Your task to perform on an android device: Turn off the flashlight Image 0: 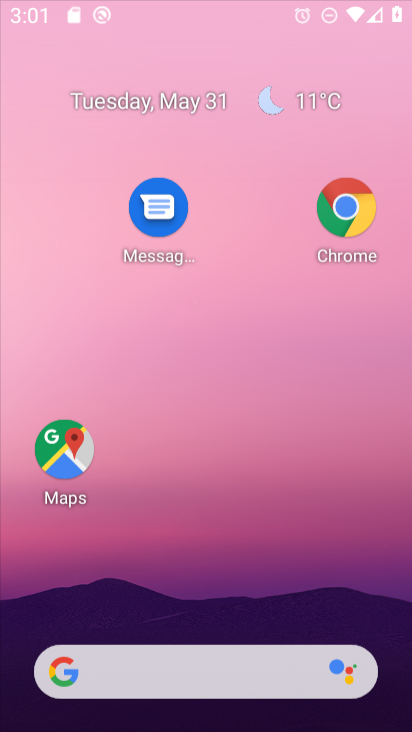
Step 0: click (179, 4)
Your task to perform on an android device: Turn off the flashlight Image 1: 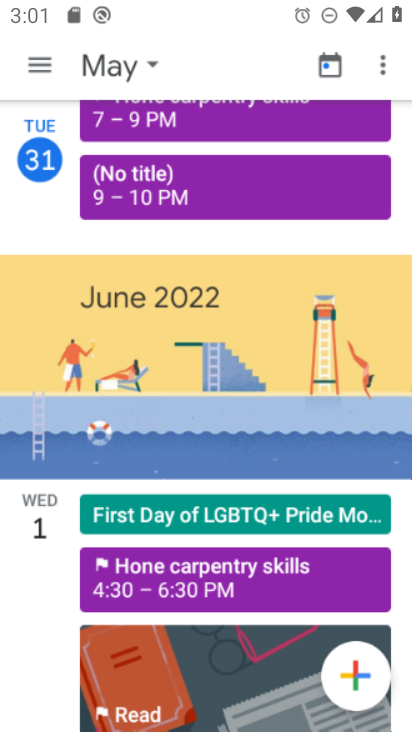
Step 1: drag from (222, 565) to (228, 55)
Your task to perform on an android device: Turn off the flashlight Image 2: 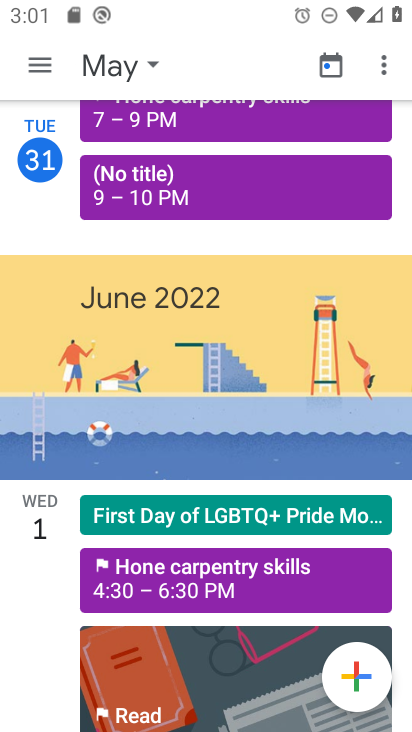
Step 2: press home button
Your task to perform on an android device: Turn off the flashlight Image 3: 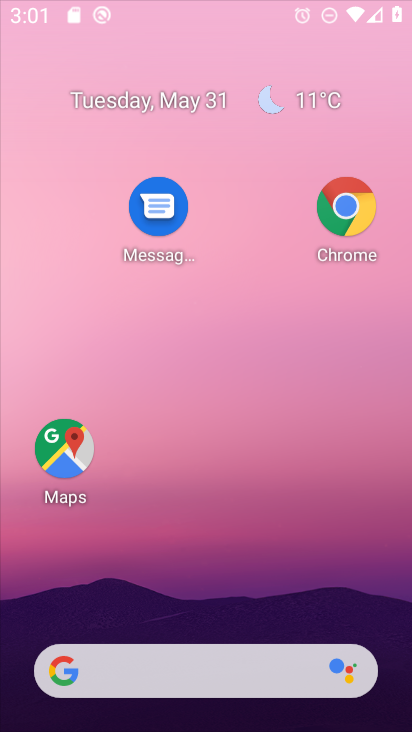
Step 3: drag from (197, 646) to (313, 17)
Your task to perform on an android device: Turn off the flashlight Image 4: 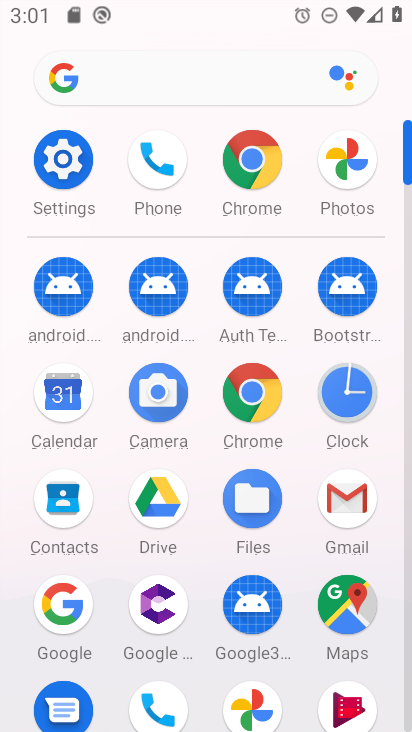
Step 4: click (72, 151)
Your task to perform on an android device: Turn off the flashlight Image 5: 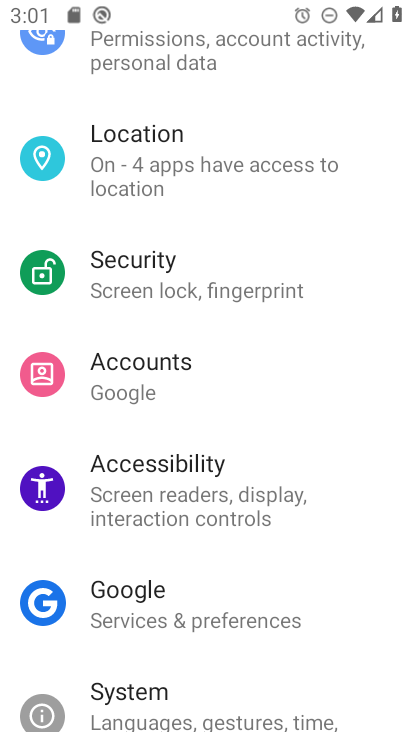
Step 5: drag from (240, 189) to (310, 497)
Your task to perform on an android device: Turn off the flashlight Image 6: 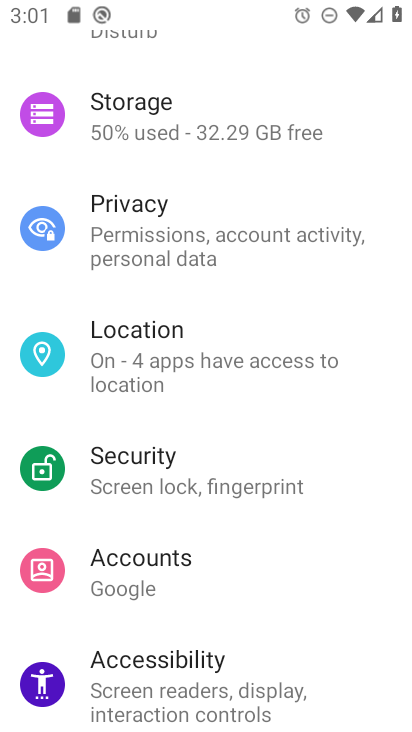
Step 6: drag from (227, 293) to (294, 672)
Your task to perform on an android device: Turn off the flashlight Image 7: 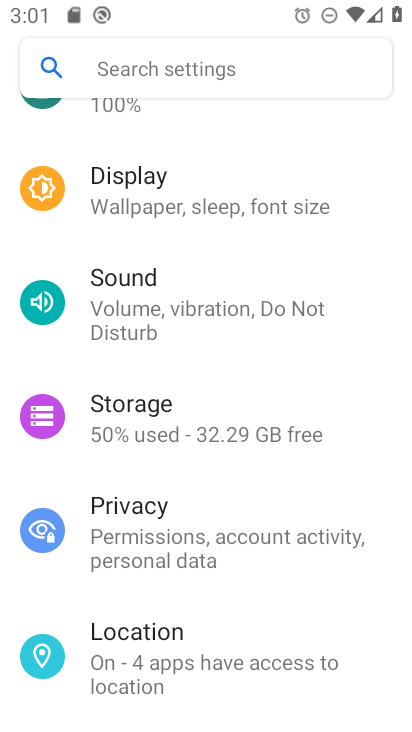
Step 7: click (235, 72)
Your task to perform on an android device: Turn off the flashlight Image 8: 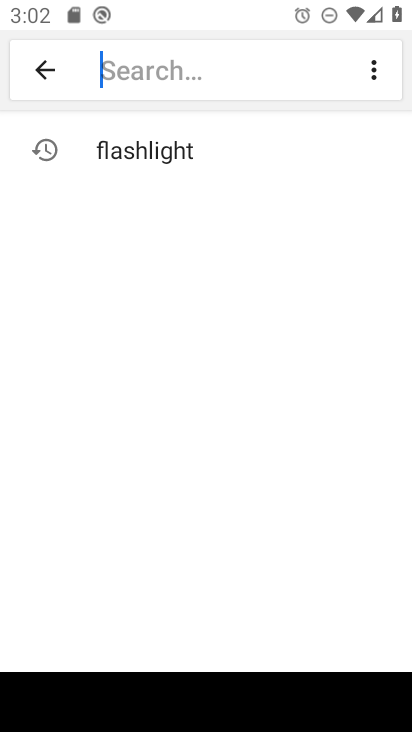
Step 8: type "flashlight"
Your task to perform on an android device: Turn off the flashlight Image 9: 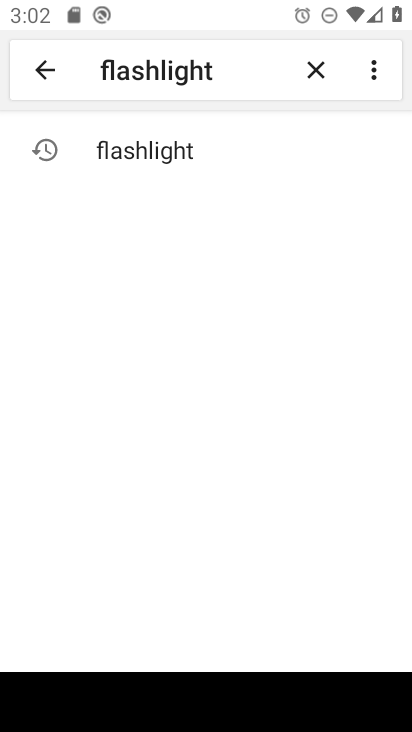
Step 9: click (264, 165)
Your task to perform on an android device: Turn off the flashlight Image 10: 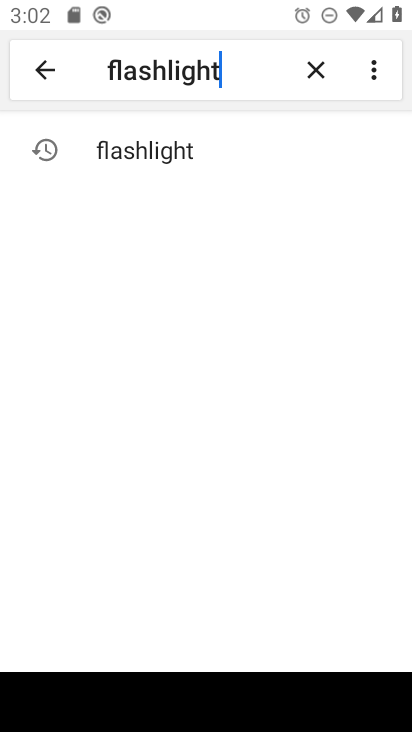
Step 10: task complete